Your task to perform on an android device: stop showing notifications on the lock screen Image 0: 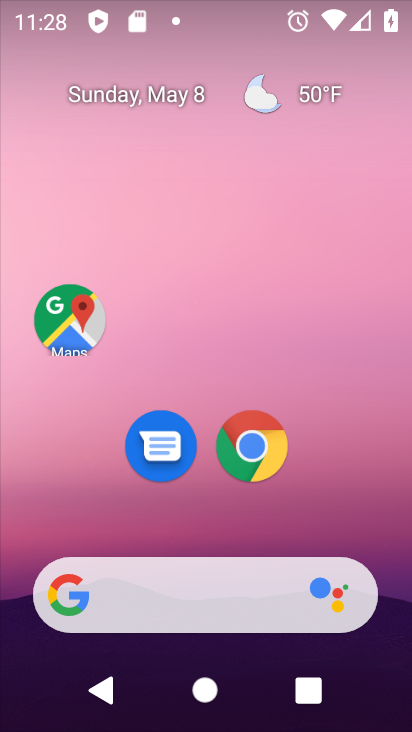
Step 0: drag from (315, 534) to (265, 28)
Your task to perform on an android device: stop showing notifications on the lock screen Image 1: 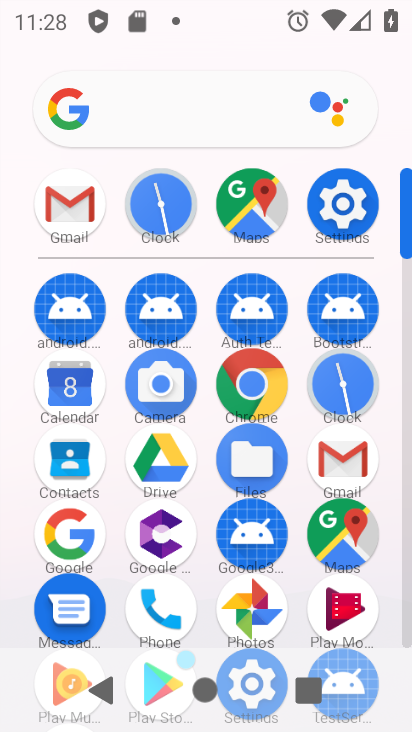
Step 1: click (343, 203)
Your task to perform on an android device: stop showing notifications on the lock screen Image 2: 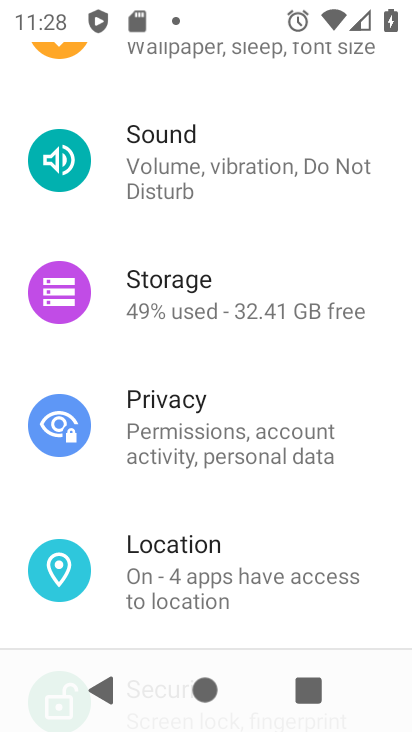
Step 2: drag from (137, 388) to (185, 497)
Your task to perform on an android device: stop showing notifications on the lock screen Image 3: 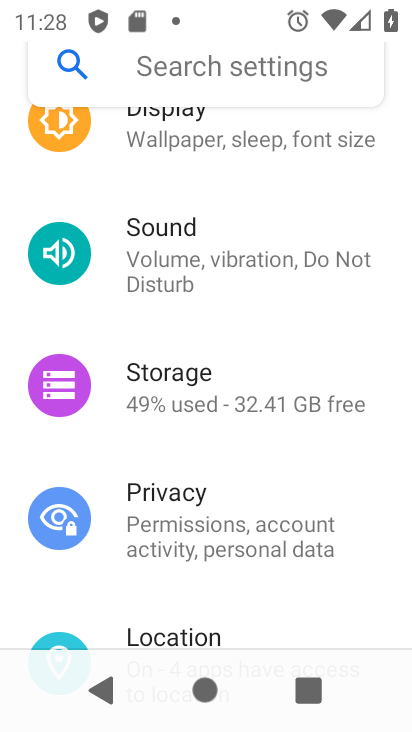
Step 3: drag from (183, 365) to (223, 453)
Your task to perform on an android device: stop showing notifications on the lock screen Image 4: 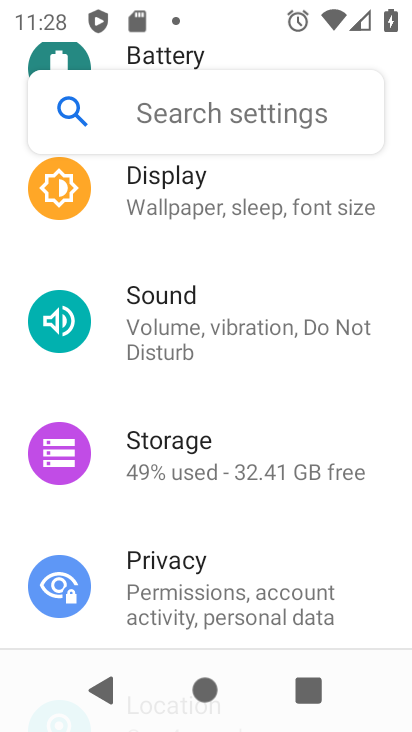
Step 4: drag from (211, 385) to (247, 460)
Your task to perform on an android device: stop showing notifications on the lock screen Image 5: 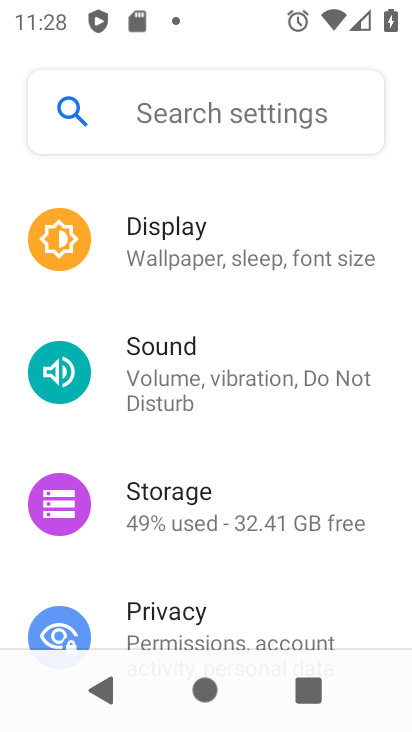
Step 5: drag from (222, 368) to (266, 487)
Your task to perform on an android device: stop showing notifications on the lock screen Image 6: 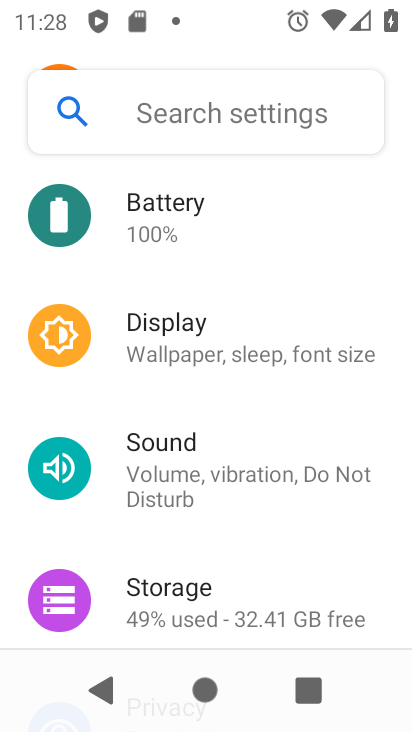
Step 6: drag from (225, 365) to (293, 488)
Your task to perform on an android device: stop showing notifications on the lock screen Image 7: 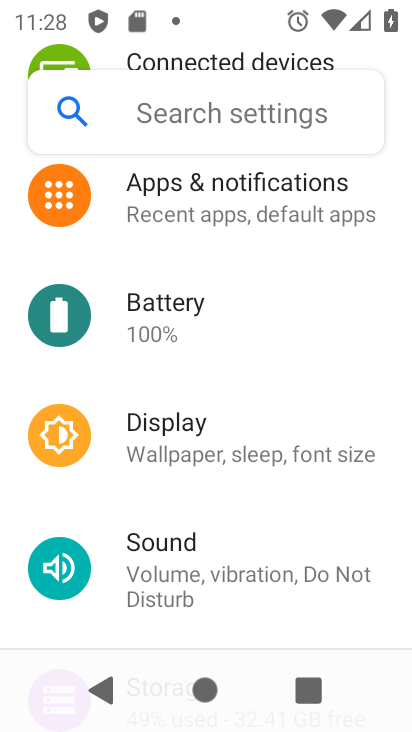
Step 7: drag from (261, 353) to (304, 482)
Your task to perform on an android device: stop showing notifications on the lock screen Image 8: 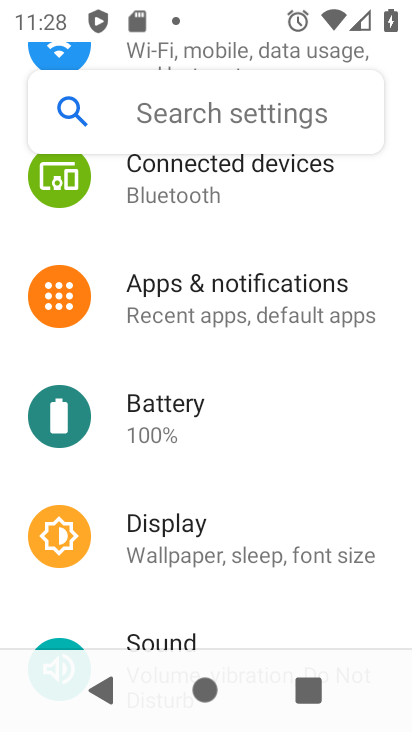
Step 8: click (246, 312)
Your task to perform on an android device: stop showing notifications on the lock screen Image 9: 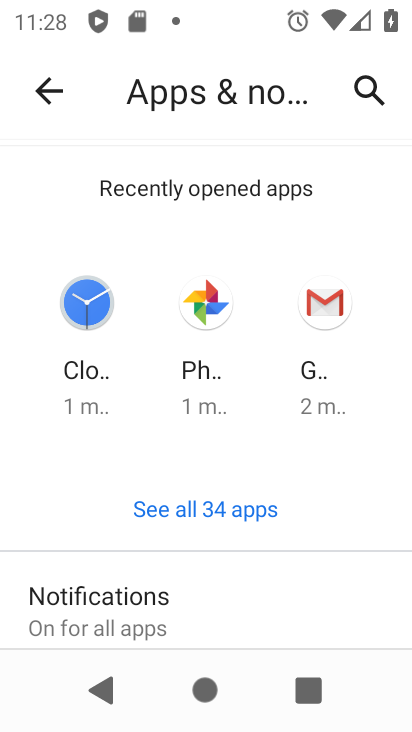
Step 9: drag from (187, 619) to (203, 378)
Your task to perform on an android device: stop showing notifications on the lock screen Image 10: 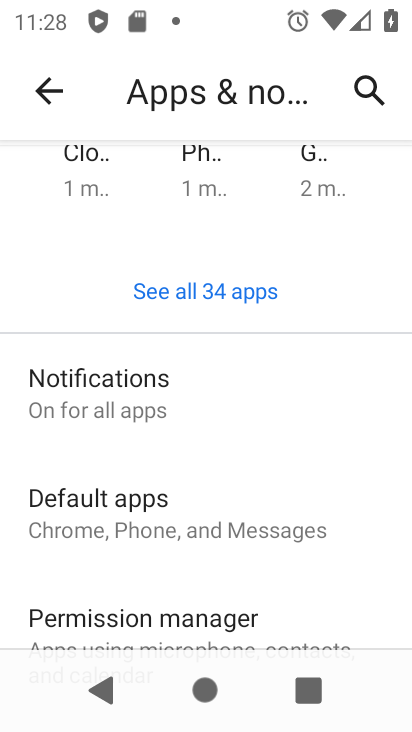
Step 10: click (179, 383)
Your task to perform on an android device: stop showing notifications on the lock screen Image 11: 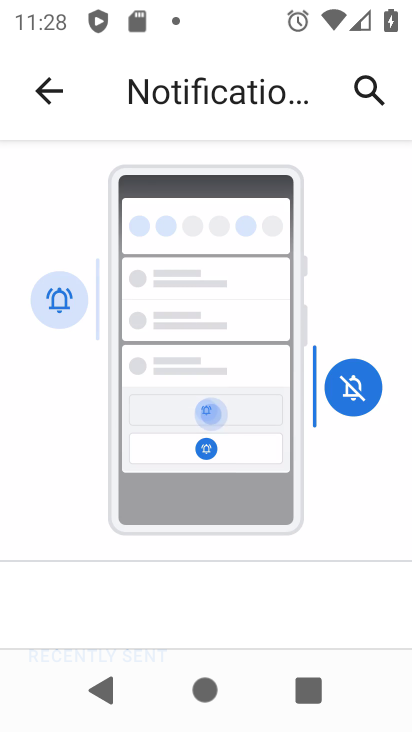
Step 11: drag from (204, 586) to (202, 280)
Your task to perform on an android device: stop showing notifications on the lock screen Image 12: 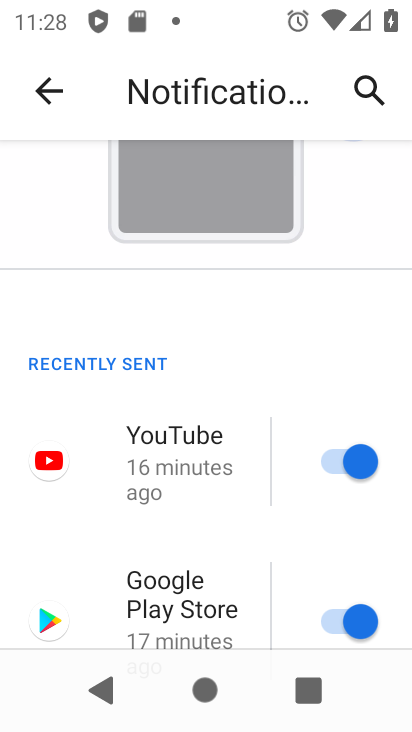
Step 12: drag from (190, 574) to (176, 416)
Your task to perform on an android device: stop showing notifications on the lock screen Image 13: 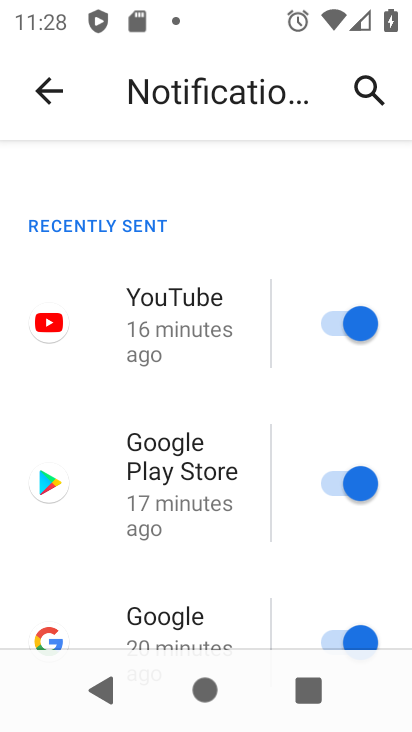
Step 13: drag from (176, 596) to (164, 424)
Your task to perform on an android device: stop showing notifications on the lock screen Image 14: 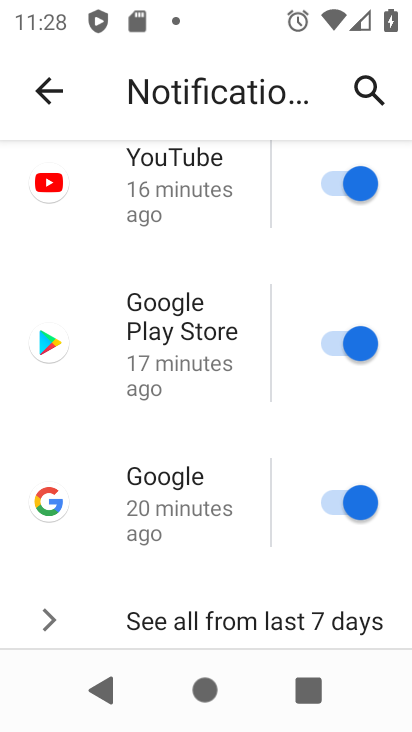
Step 14: drag from (156, 581) to (137, 378)
Your task to perform on an android device: stop showing notifications on the lock screen Image 15: 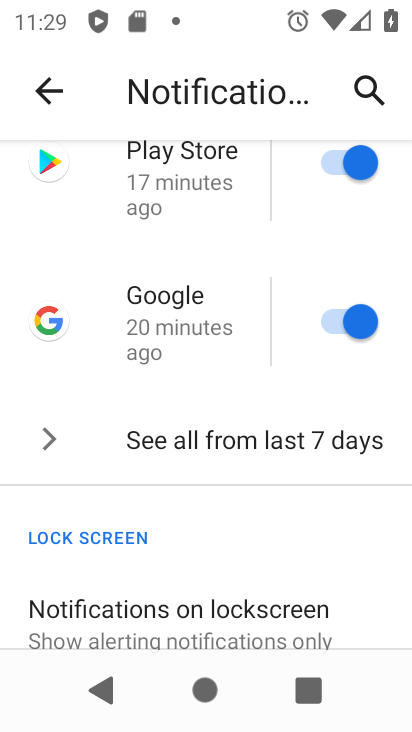
Step 15: drag from (155, 587) to (173, 421)
Your task to perform on an android device: stop showing notifications on the lock screen Image 16: 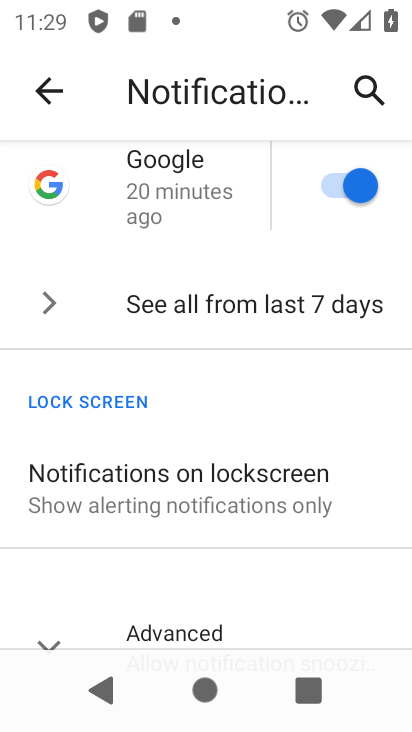
Step 16: drag from (167, 498) to (169, 536)
Your task to perform on an android device: stop showing notifications on the lock screen Image 17: 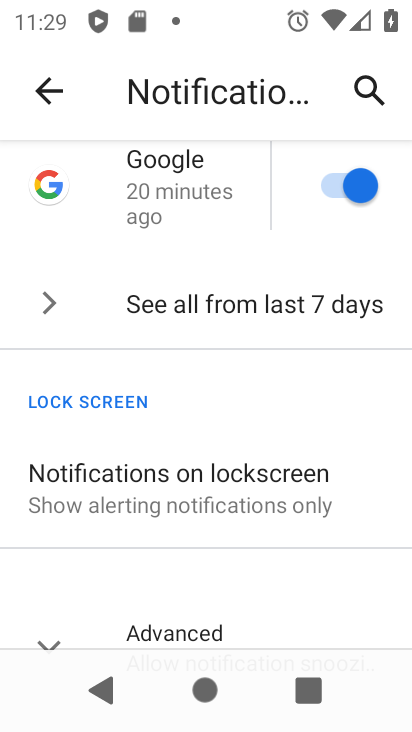
Step 17: click (203, 498)
Your task to perform on an android device: stop showing notifications on the lock screen Image 18: 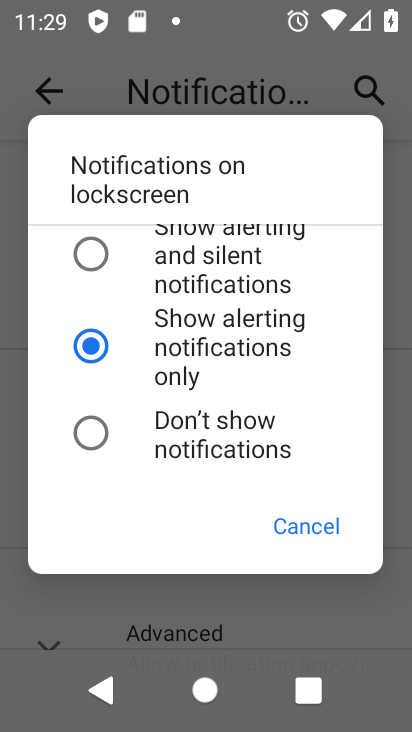
Step 18: click (203, 437)
Your task to perform on an android device: stop showing notifications on the lock screen Image 19: 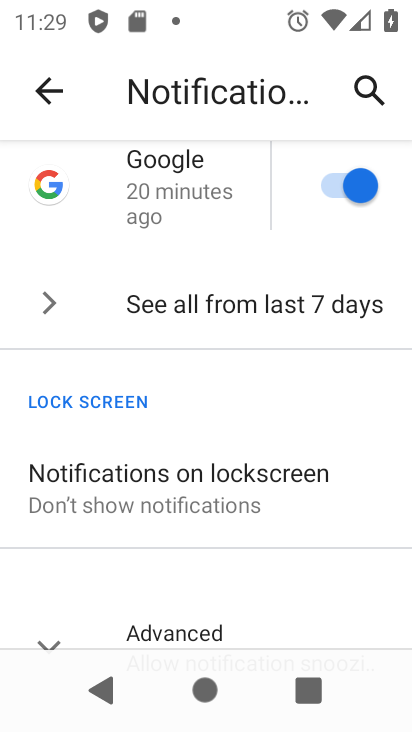
Step 19: task complete